Your task to perform on an android device: toggle wifi Image 0: 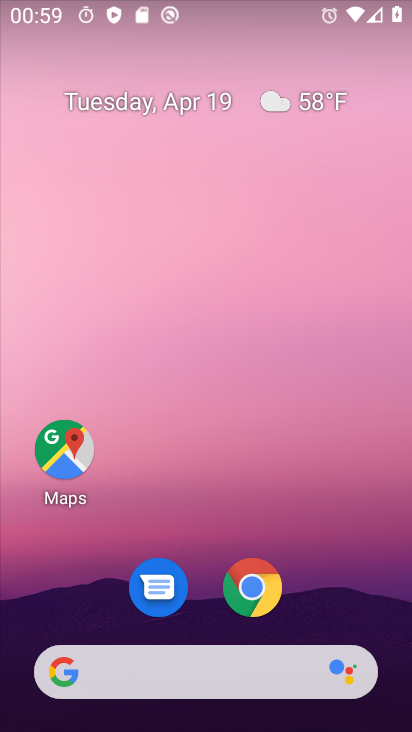
Step 0: drag from (393, 563) to (411, 168)
Your task to perform on an android device: toggle wifi Image 1: 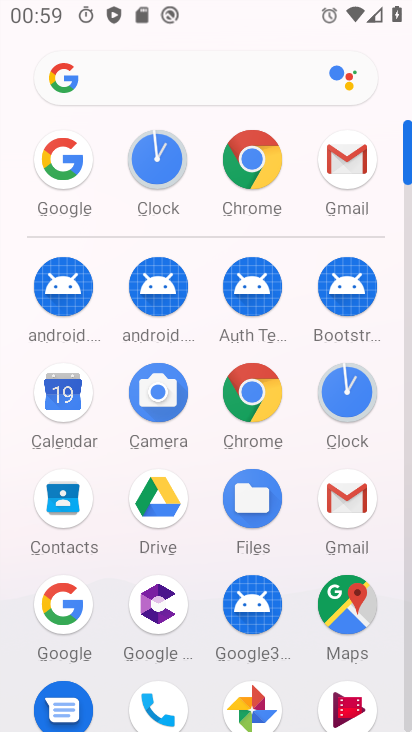
Step 1: drag from (298, 555) to (303, 261)
Your task to perform on an android device: toggle wifi Image 2: 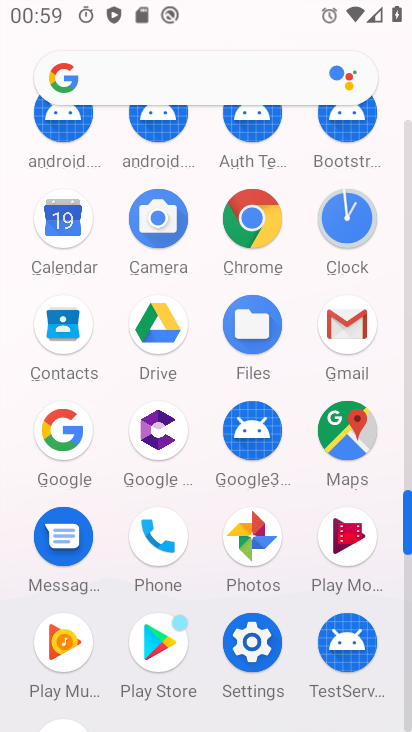
Step 2: click (245, 635)
Your task to perform on an android device: toggle wifi Image 3: 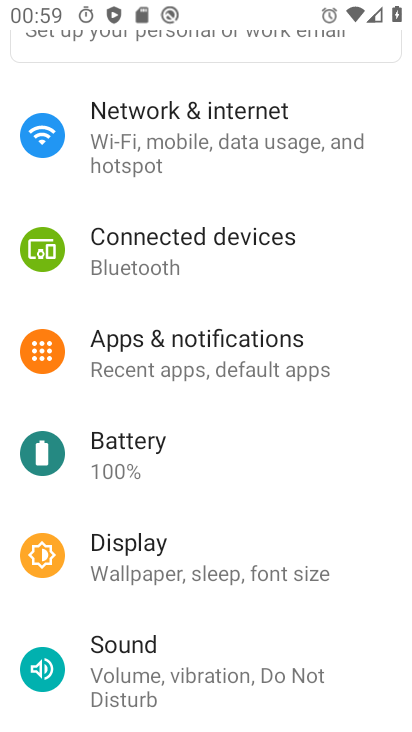
Step 3: click (271, 158)
Your task to perform on an android device: toggle wifi Image 4: 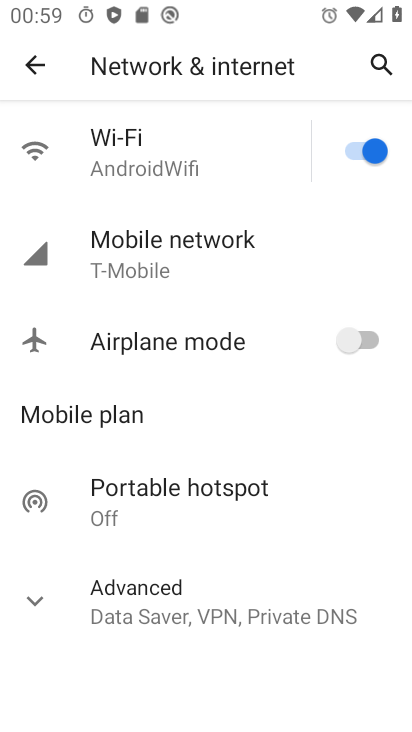
Step 4: click (354, 155)
Your task to perform on an android device: toggle wifi Image 5: 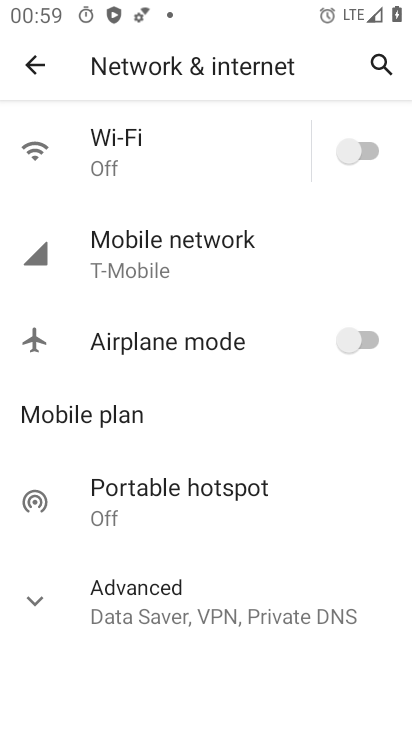
Step 5: task complete